Your task to perform on an android device: move an email to a new category in the gmail app Image 0: 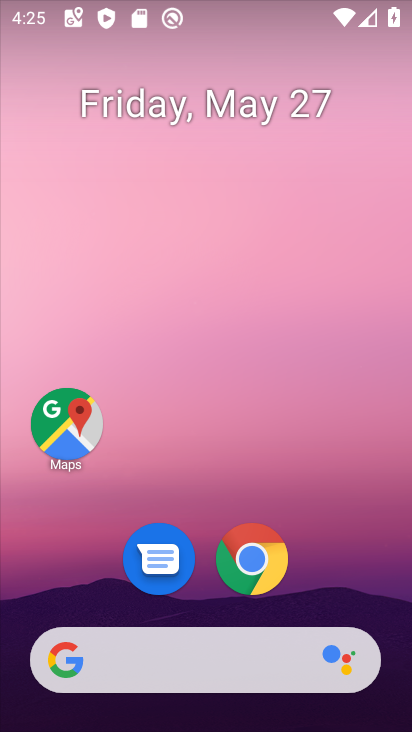
Step 0: drag from (396, 690) to (342, 228)
Your task to perform on an android device: move an email to a new category in the gmail app Image 1: 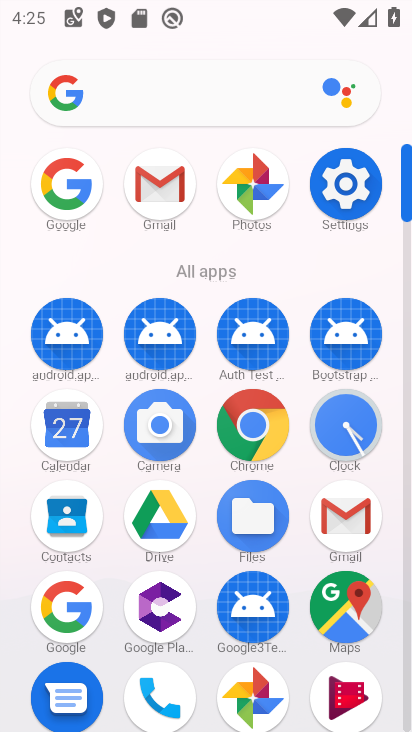
Step 1: click (322, 523)
Your task to perform on an android device: move an email to a new category in the gmail app Image 2: 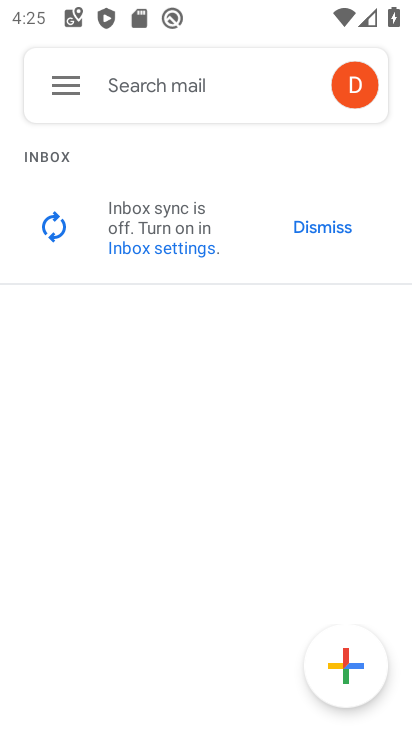
Step 2: click (55, 82)
Your task to perform on an android device: move an email to a new category in the gmail app Image 3: 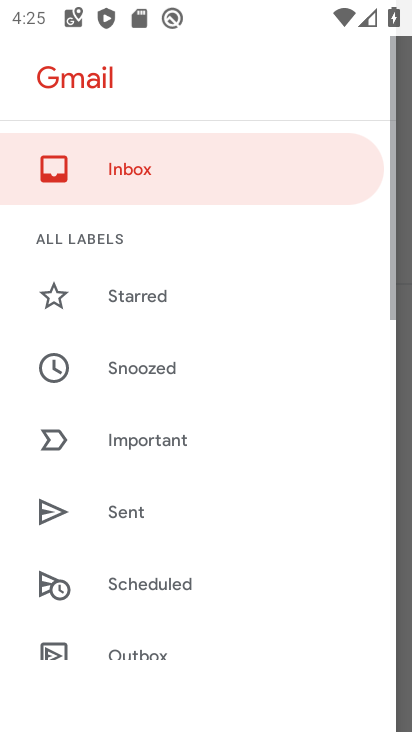
Step 3: click (129, 170)
Your task to perform on an android device: move an email to a new category in the gmail app Image 4: 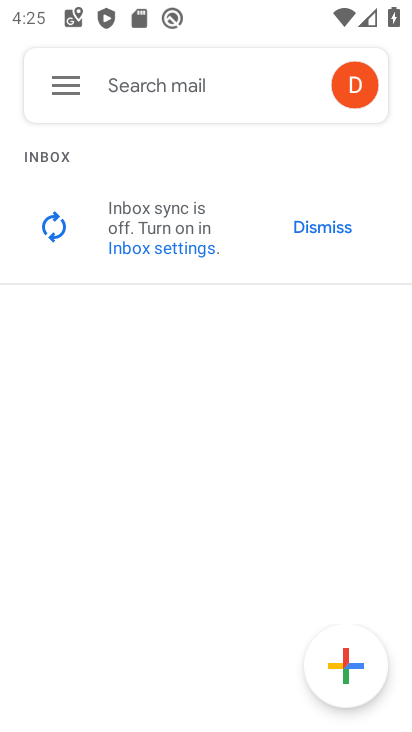
Step 4: task complete